Your task to perform on an android device: Go to Wikipedia Image 0: 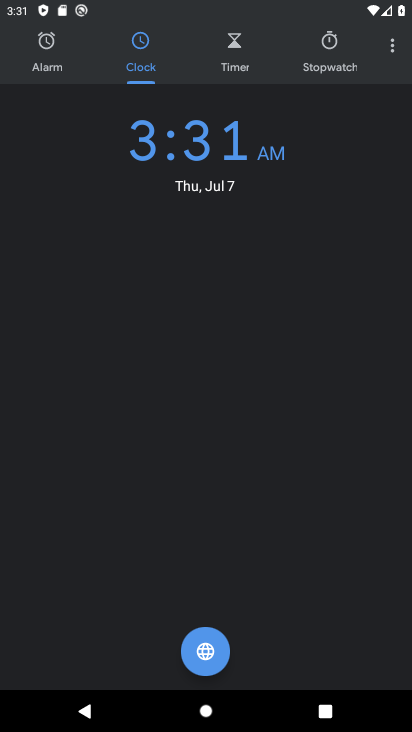
Step 0: press home button
Your task to perform on an android device: Go to Wikipedia Image 1: 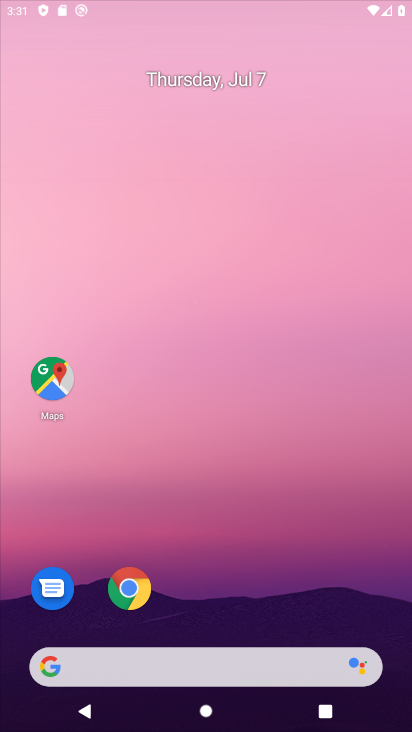
Step 1: drag from (169, 696) to (172, 215)
Your task to perform on an android device: Go to Wikipedia Image 2: 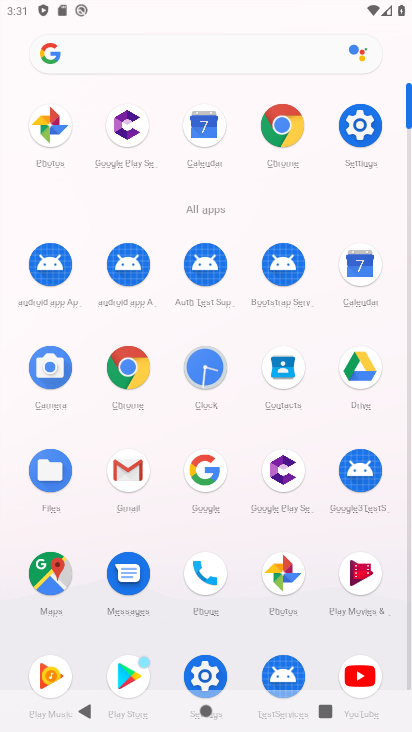
Step 2: click (139, 366)
Your task to perform on an android device: Go to Wikipedia Image 3: 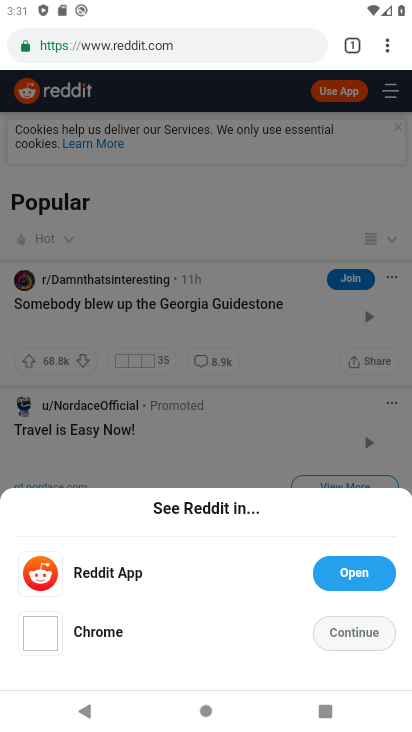
Step 3: click (175, 53)
Your task to perform on an android device: Go to Wikipedia Image 4: 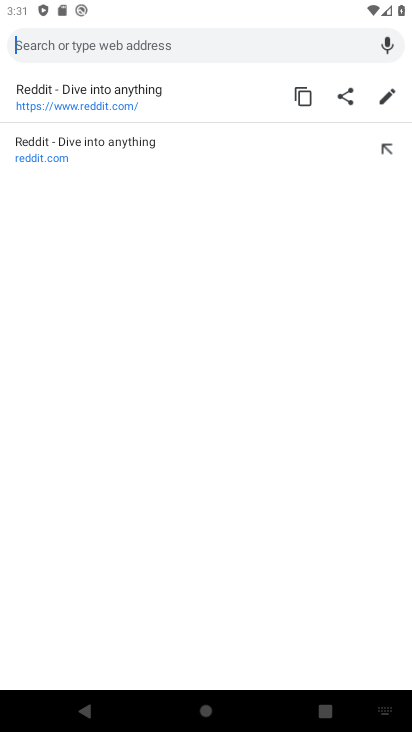
Step 4: type "wikipedia"
Your task to perform on an android device: Go to Wikipedia Image 5: 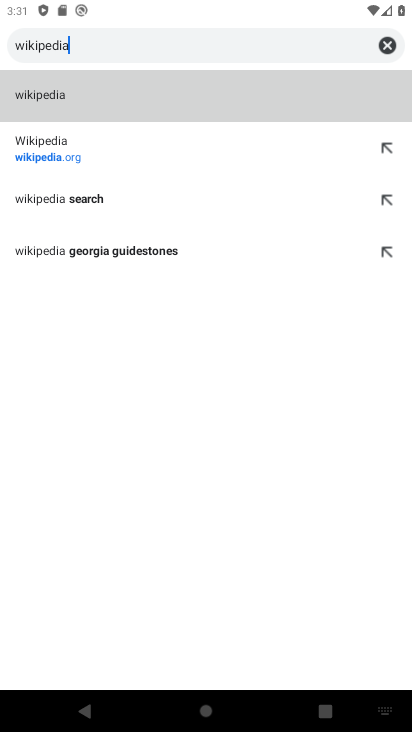
Step 5: click (89, 135)
Your task to perform on an android device: Go to Wikipedia Image 6: 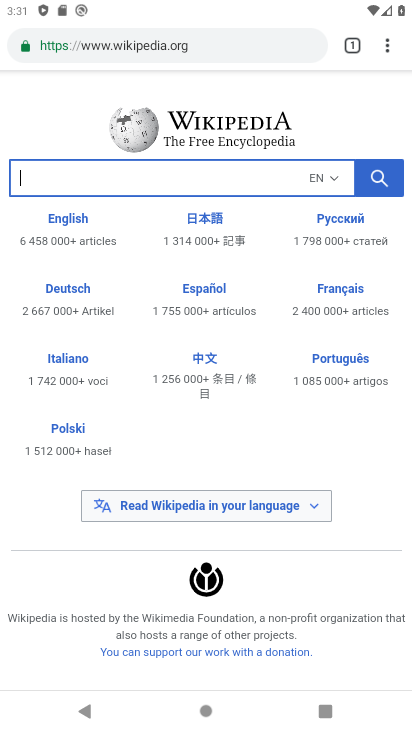
Step 6: task complete